Your task to perform on an android device: What's the weather? Image 0: 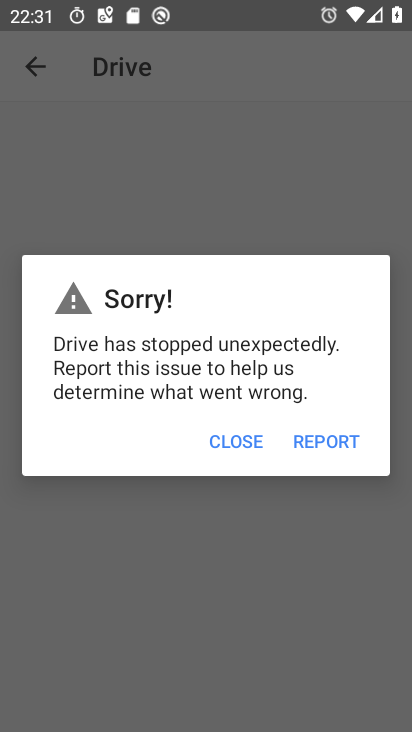
Step 0: press home button
Your task to perform on an android device: What's the weather? Image 1: 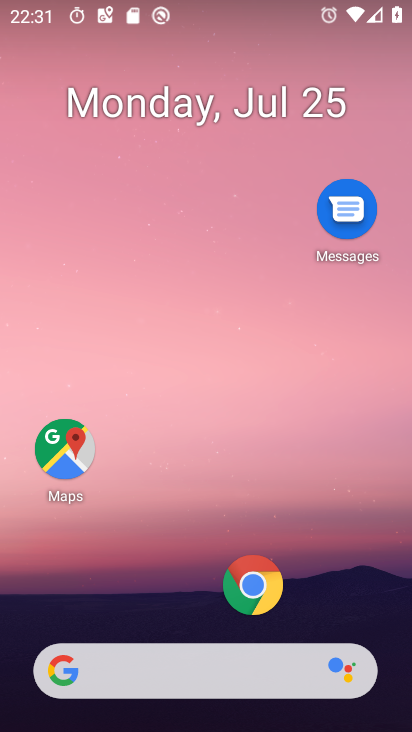
Step 1: click (151, 667)
Your task to perform on an android device: What's the weather? Image 2: 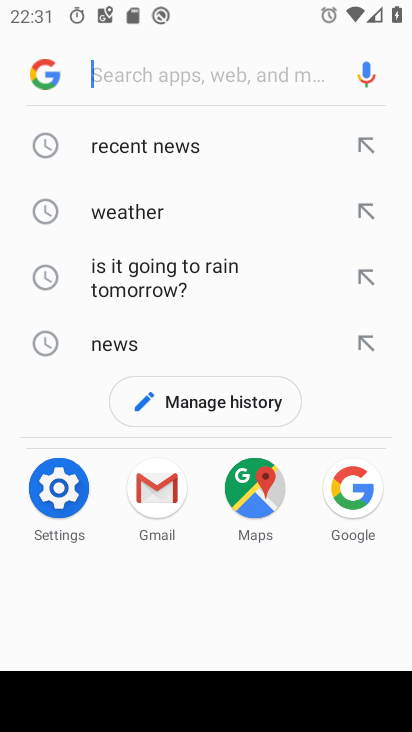
Step 2: click (122, 213)
Your task to perform on an android device: What's the weather? Image 3: 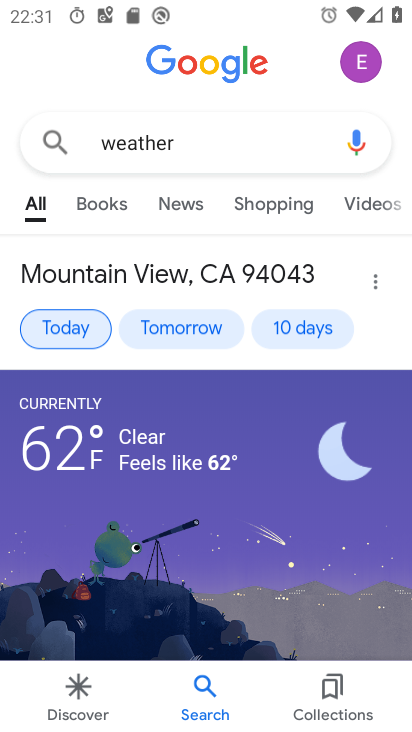
Step 3: task complete